Your task to perform on an android device: Go to Yahoo.com Image 0: 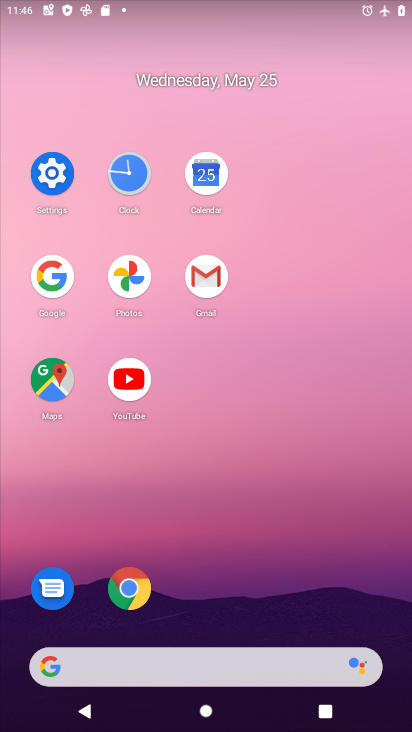
Step 0: click (131, 587)
Your task to perform on an android device: Go to Yahoo.com Image 1: 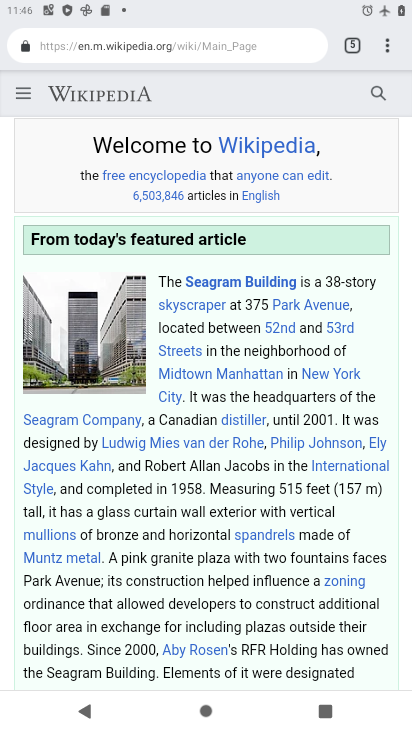
Step 1: click (353, 50)
Your task to perform on an android device: Go to Yahoo.com Image 2: 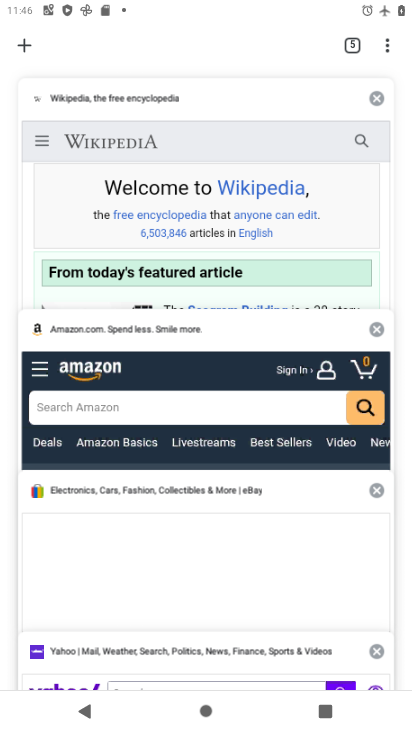
Step 2: drag from (241, 237) to (237, 565)
Your task to perform on an android device: Go to Yahoo.com Image 3: 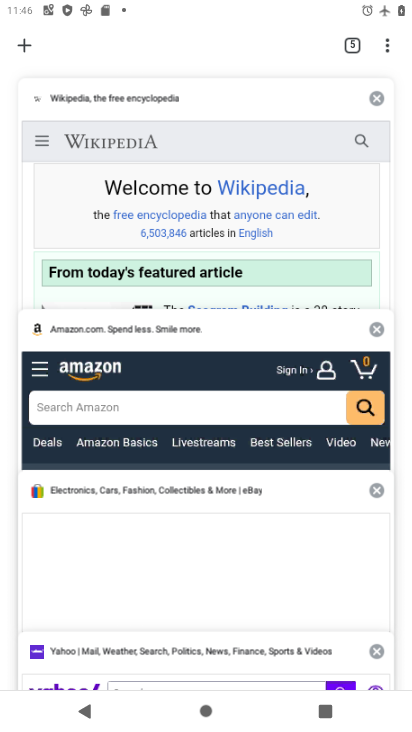
Step 3: drag from (211, 535) to (188, 104)
Your task to perform on an android device: Go to Yahoo.com Image 4: 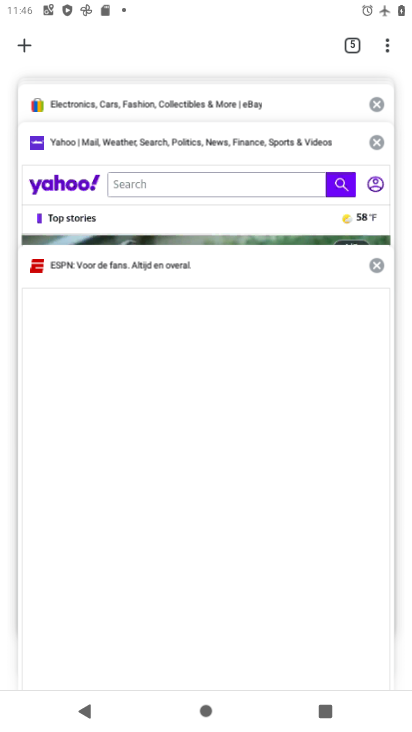
Step 4: click (56, 184)
Your task to perform on an android device: Go to Yahoo.com Image 5: 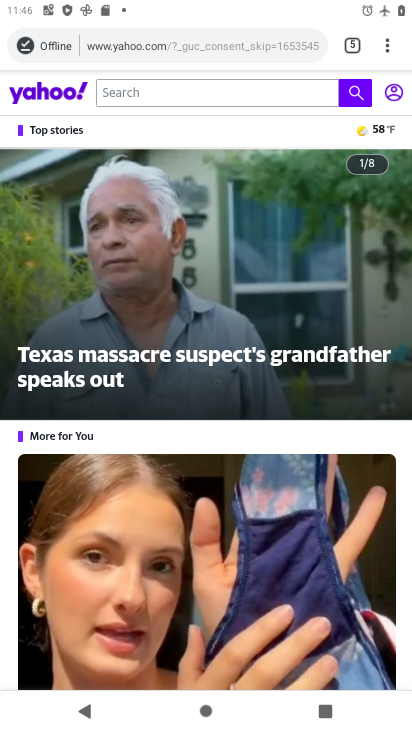
Step 5: task complete